Your task to perform on an android device: Turn off the flashlight Image 0: 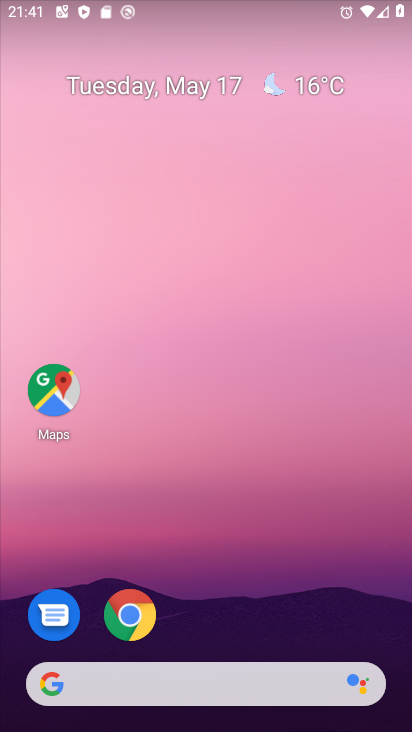
Step 0: drag from (353, 33) to (372, 651)
Your task to perform on an android device: Turn off the flashlight Image 1: 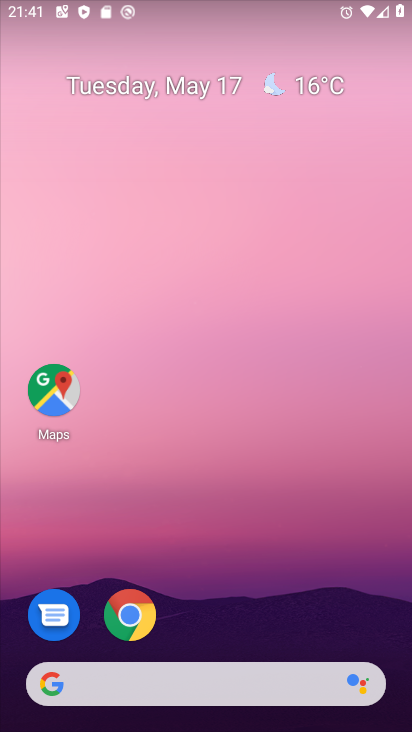
Step 1: drag from (341, 3) to (367, 645)
Your task to perform on an android device: Turn off the flashlight Image 2: 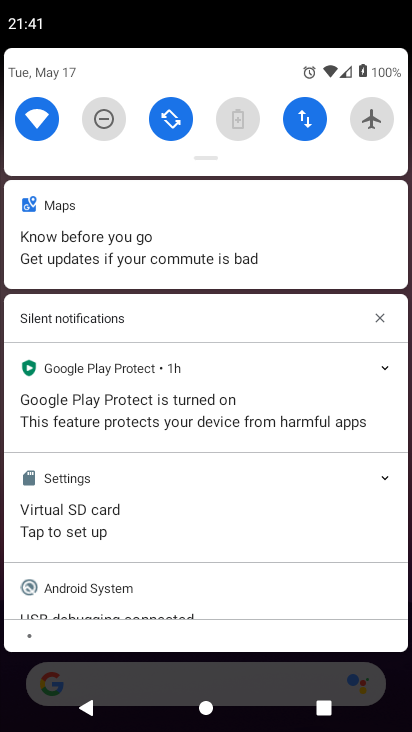
Step 2: drag from (259, 156) to (269, 539)
Your task to perform on an android device: Turn off the flashlight Image 3: 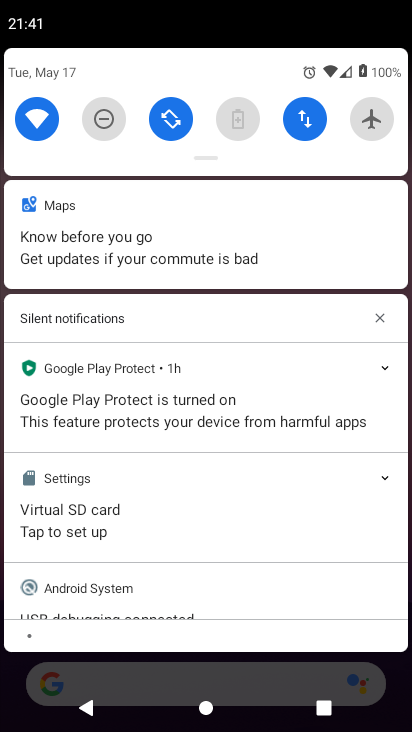
Step 3: drag from (395, 307) to (268, 649)
Your task to perform on an android device: Turn off the flashlight Image 4: 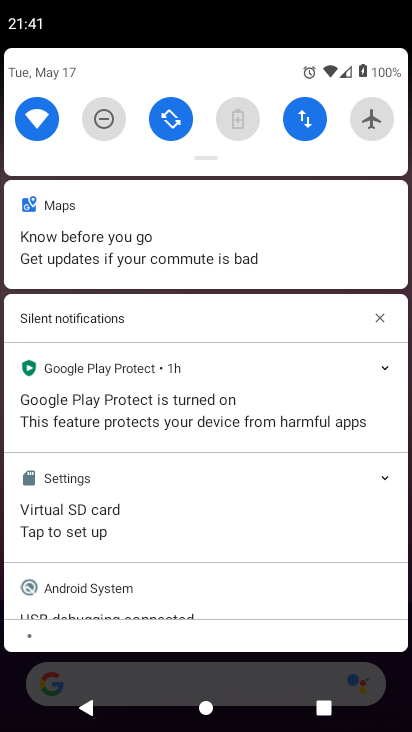
Step 4: drag from (205, 149) to (230, 565)
Your task to perform on an android device: Turn off the flashlight Image 5: 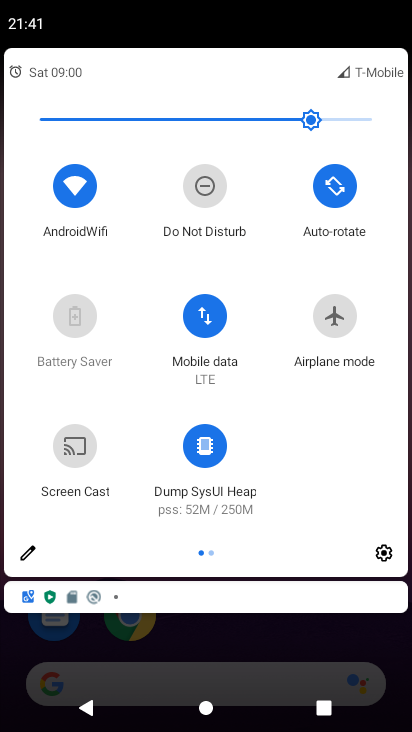
Step 5: click (22, 544)
Your task to perform on an android device: Turn off the flashlight Image 6: 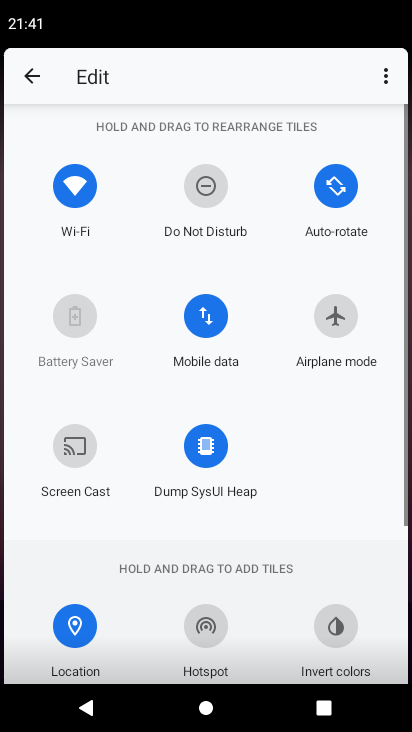
Step 6: task complete